Your task to perform on an android device: toggle wifi Image 0: 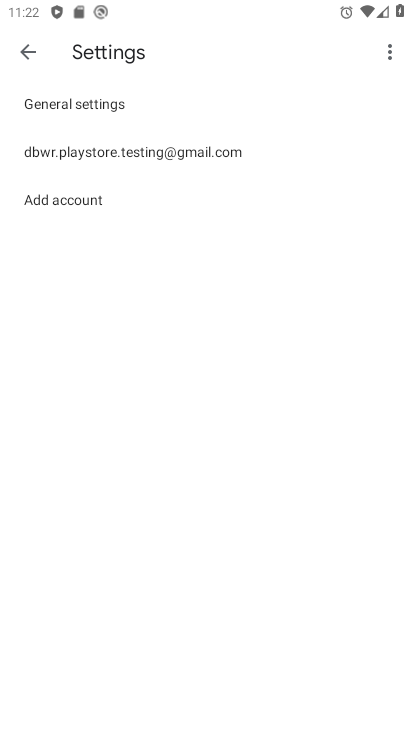
Step 0: drag from (215, 611) to (200, 98)
Your task to perform on an android device: toggle wifi Image 1: 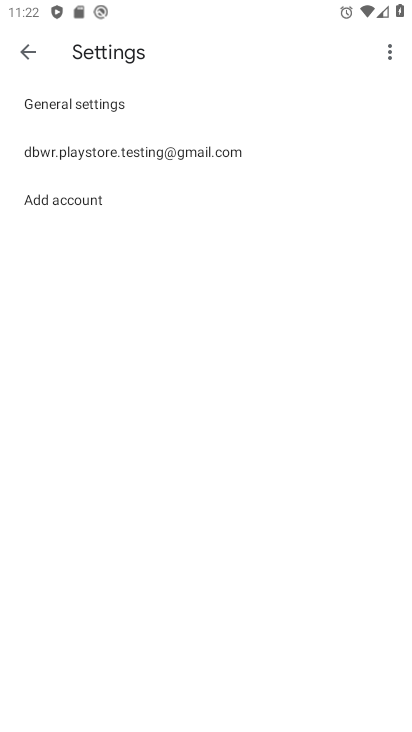
Step 1: press home button
Your task to perform on an android device: toggle wifi Image 2: 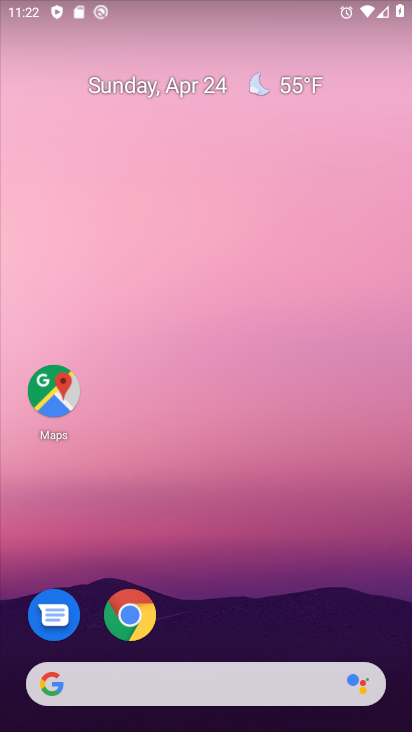
Step 2: drag from (178, 9) to (164, 677)
Your task to perform on an android device: toggle wifi Image 3: 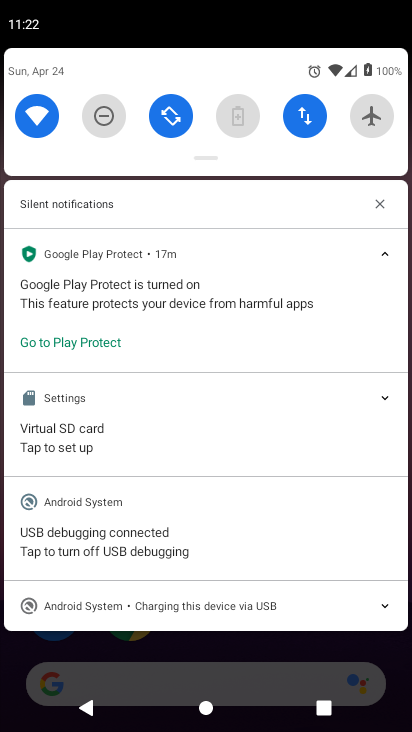
Step 3: click (36, 111)
Your task to perform on an android device: toggle wifi Image 4: 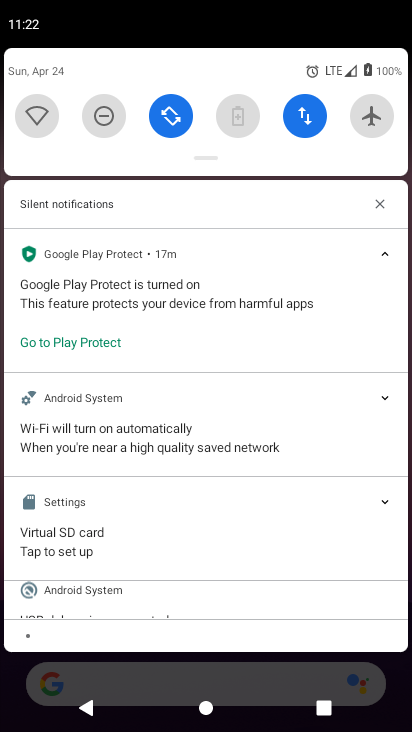
Step 4: task complete